Your task to perform on an android device: change timer sound Image 0: 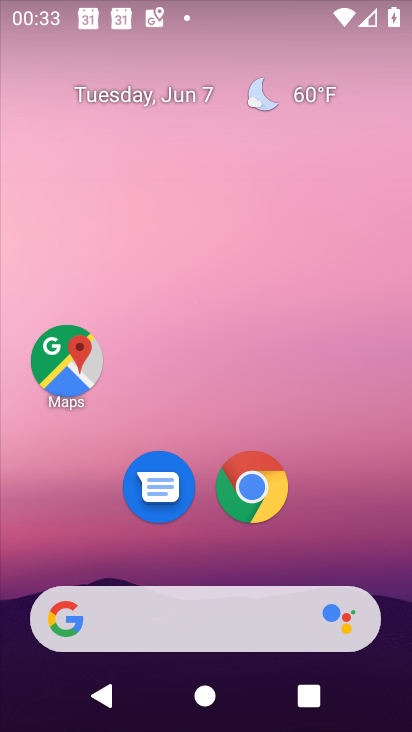
Step 0: drag from (381, 527) to (308, 160)
Your task to perform on an android device: change timer sound Image 1: 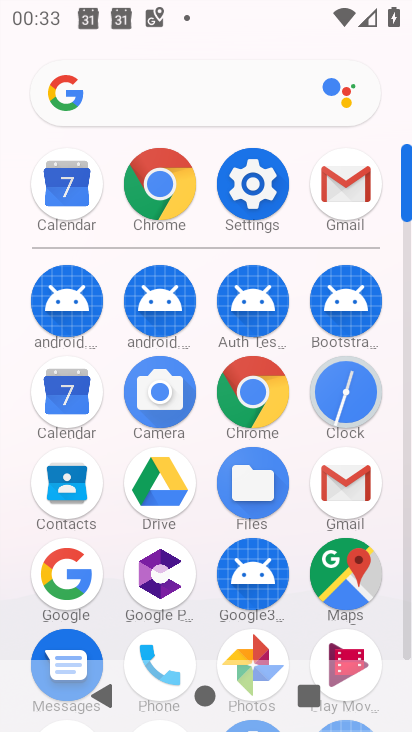
Step 1: click (364, 384)
Your task to perform on an android device: change timer sound Image 2: 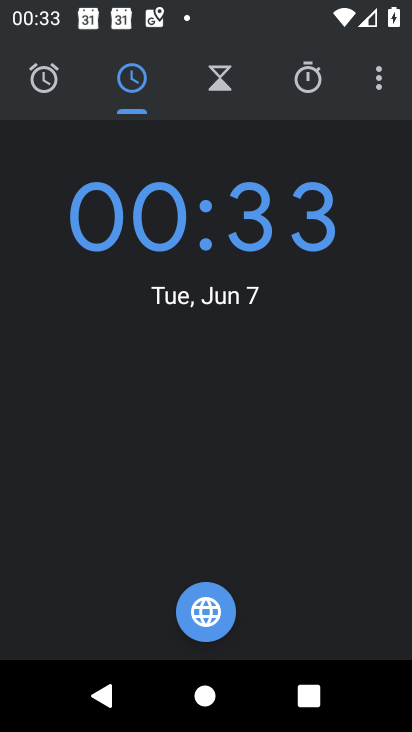
Step 2: click (374, 102)
Your task to perform on an android device: change timer sound Image 3: 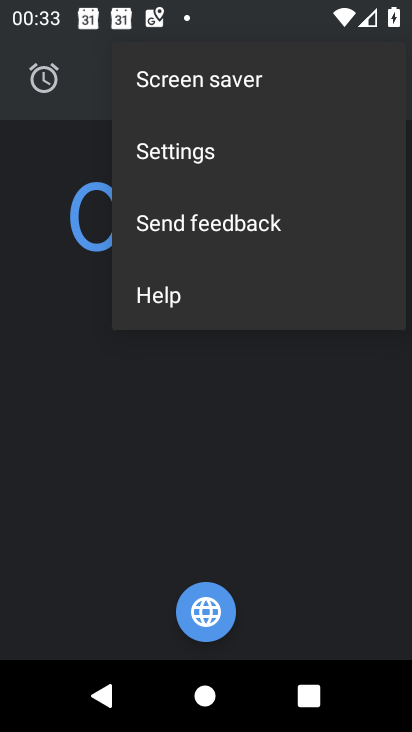
Step 3: click (291, 145)
Your task to perform on an android device: change timer sound Image 4: 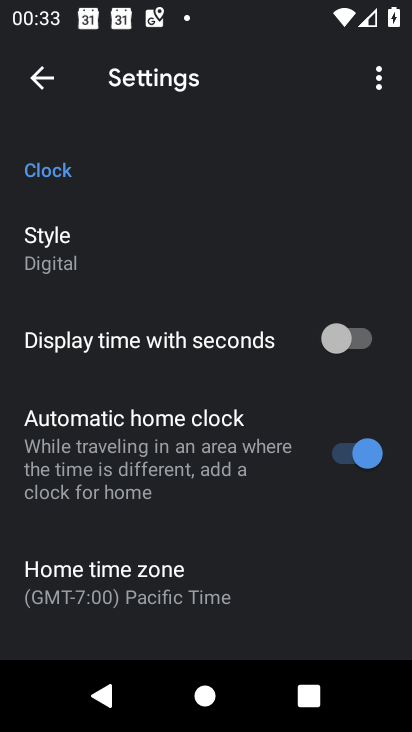
Step 4: drag from (226, 583) to (237, 123)
Your task to perform on an android device: change timer sound Image 5: 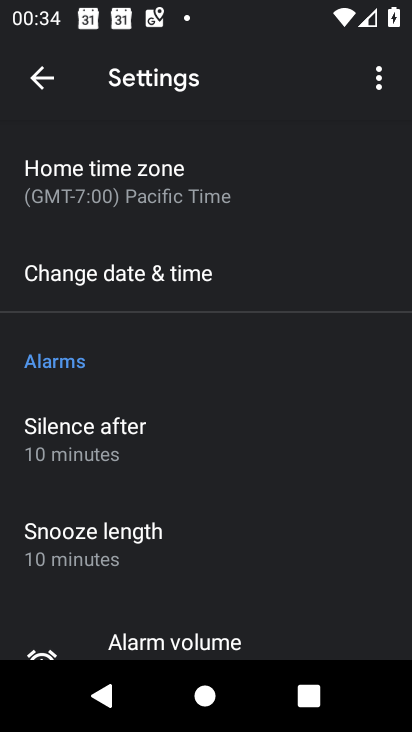
Step 5: drag from (205, 563) to (166, 134)
Your task to perform on an android device: change timer sound Image 6: 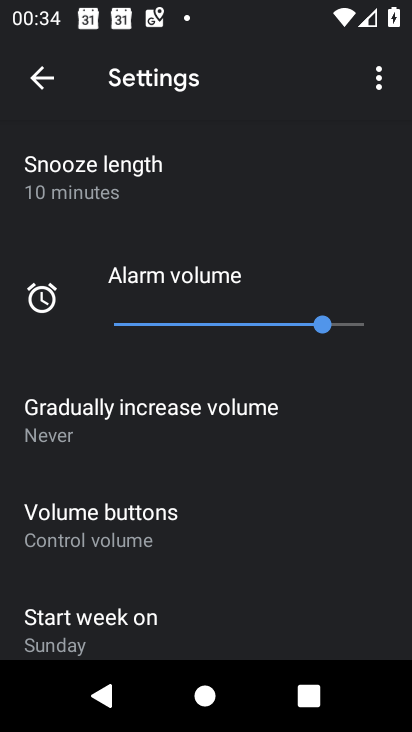
Step 6: drag from (240, 529) to (214, 45)
Your task to perform on an android device: change timer sound Image 7: 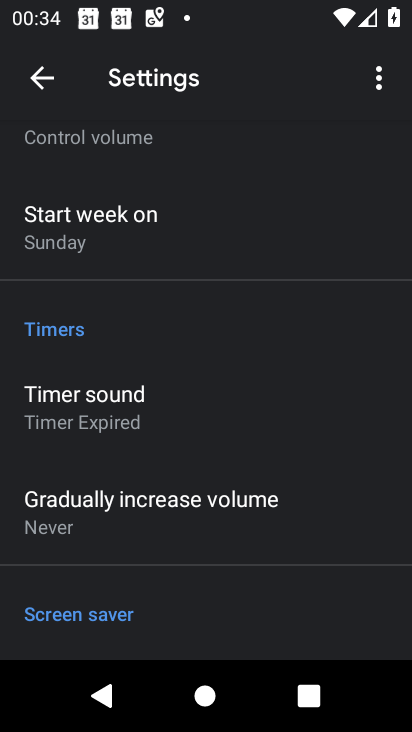
Step 7: click (230, 399)
Your task to perform on an android device: change timer sound Image 8: 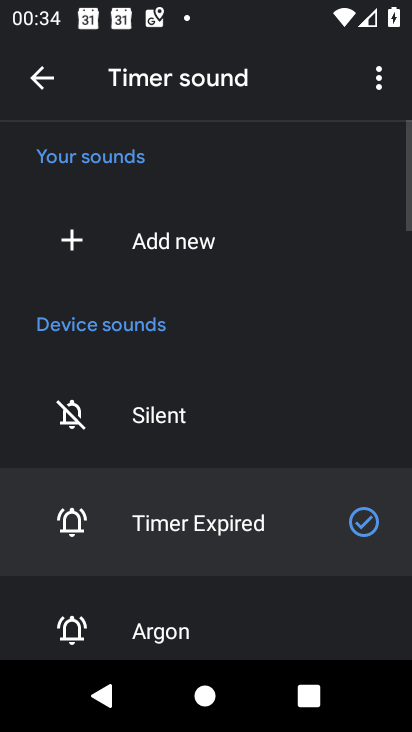
Step 8: click (185, 620)
Your task to perform on an android device: change timer sound Image 9: 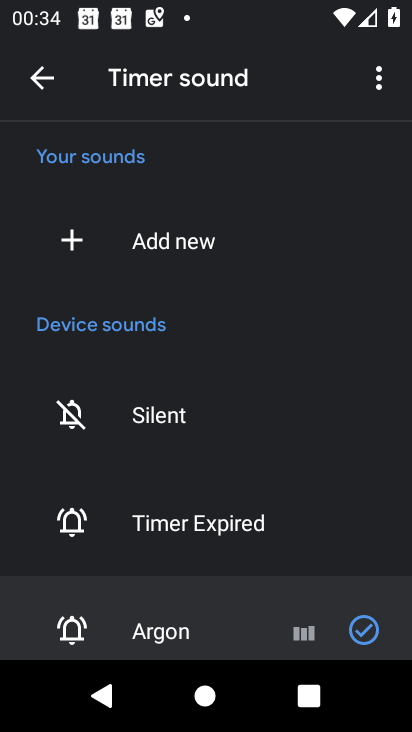
Step 9: task complete